Your task to perform on an android device: What's the weather today? Image 0: 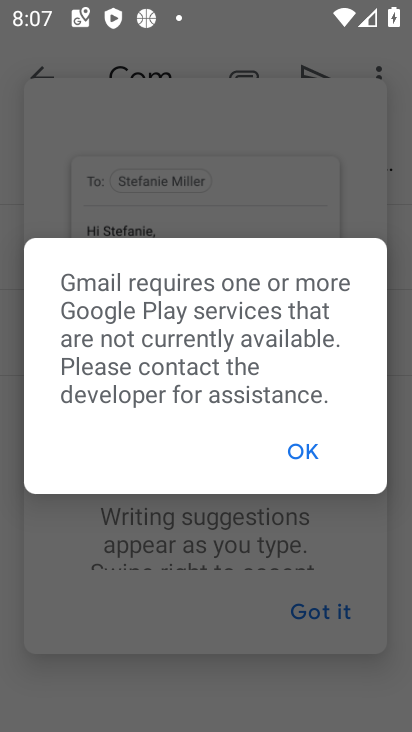
Step 0: press home button
Your task to perform on an android device: What's the weather today? Image 1: 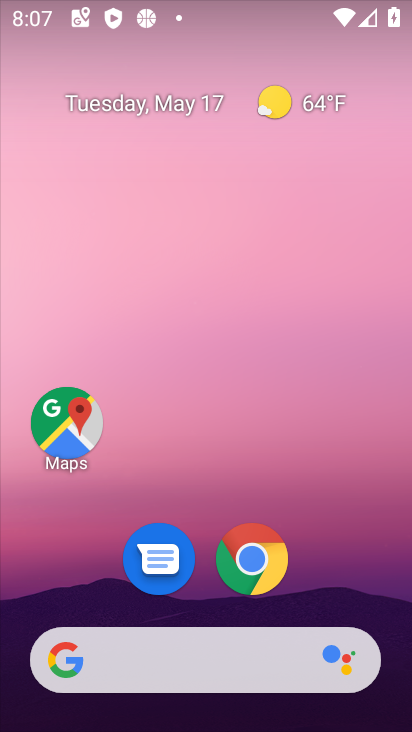
Step 1: click (218, 641)
Your task to perform on an android device: What's the weather today? Image 2: 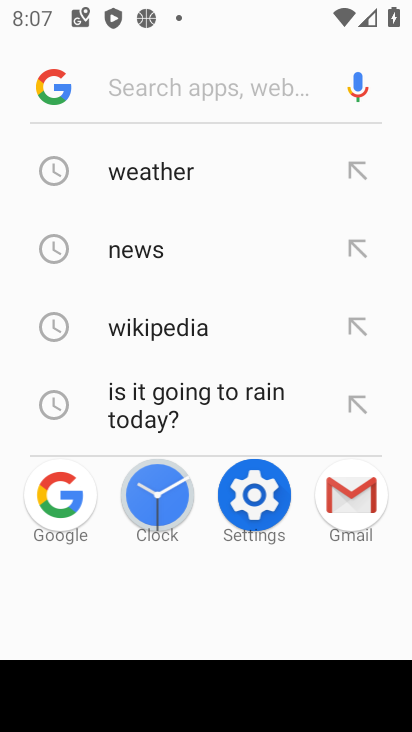
Step 2: click (142, 179)
Your task to perform on an android device: What's the weather today? Image 3: 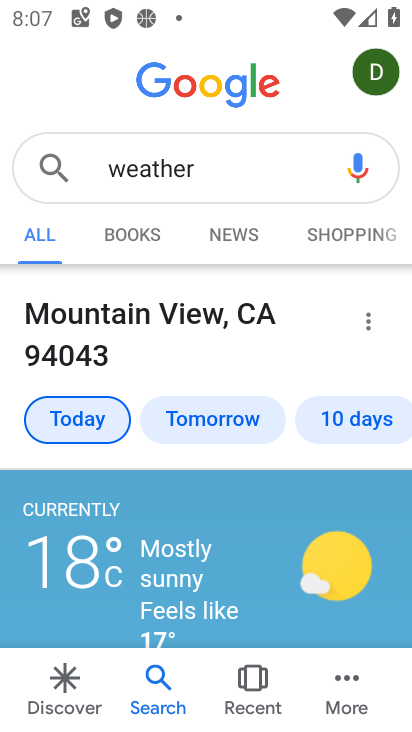
Step 3: click (80, 408)
Your task to perform on an android device: What's the weather today? Image 4: 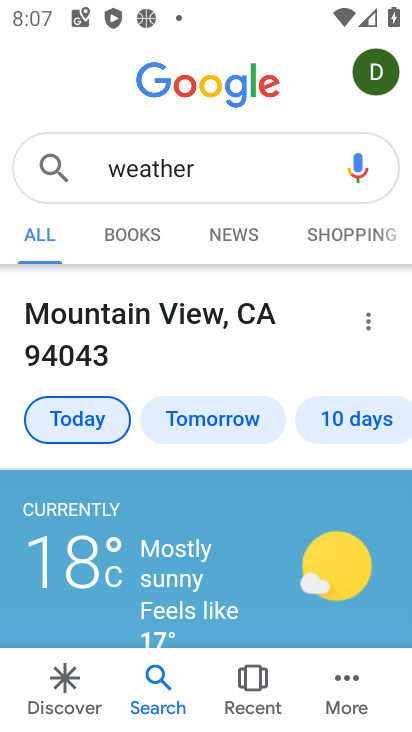
Step 4: task complete